Your task to perform on an android device: visit the assistant section in the google photos Image 0: 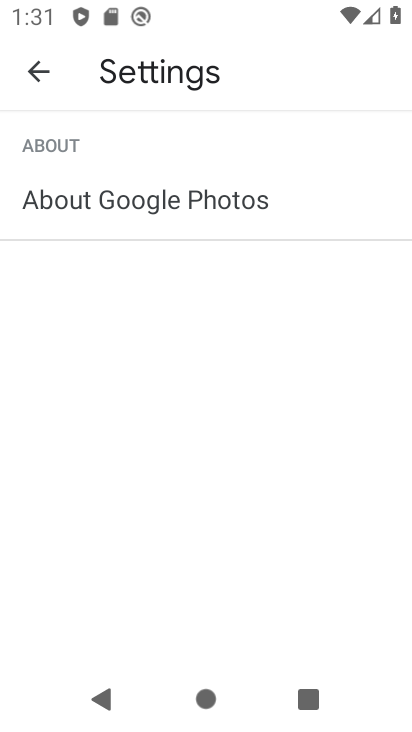
Step 0: press home button
Your task to perform on an android device: visit the assistant section in the google photos Image 1: 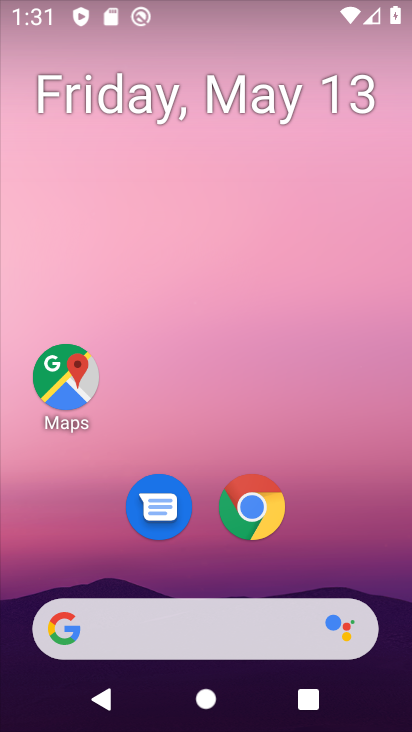
Step 1: drag from (218, 586) to (244, 32)
Your task to perform on an android device: visit the assistant section in the google photos Image 2: 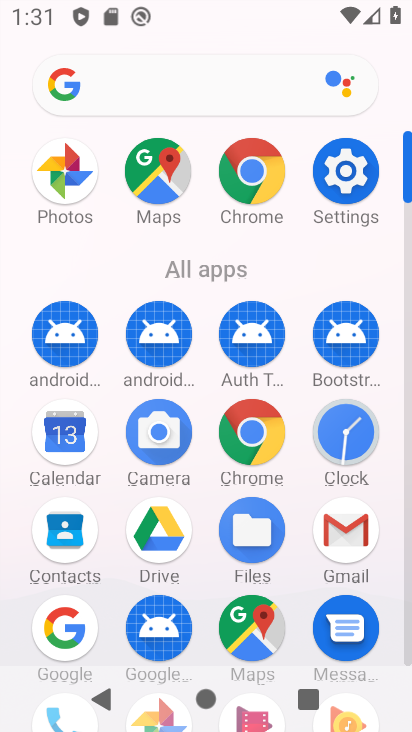
Step 2: drag from (108, 589) to (56, 104)
Your task to perform on an android device: visit the assistant section in the google photos Image 3: 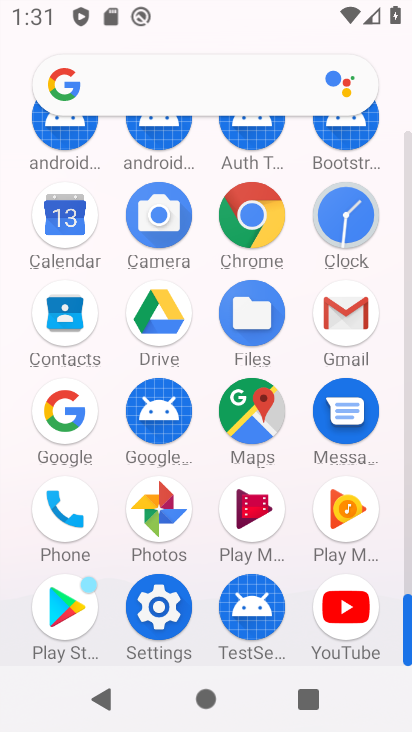
Step 3: click (160, 528)
Your task to perform on an android device: visit the assistant section in the google photos Image 4: 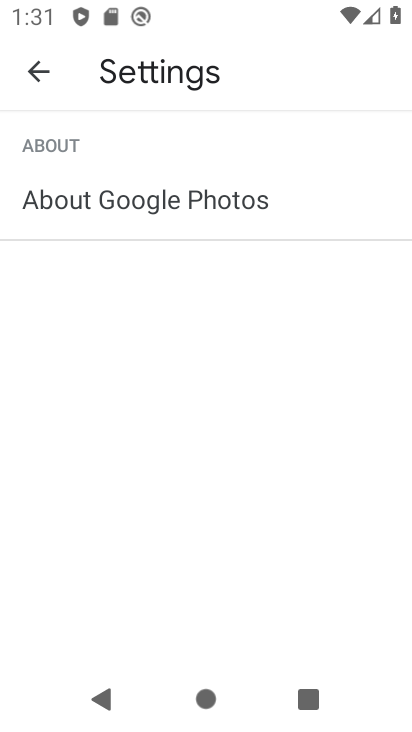
Step 4: click (38, 69)
Your task to perform on an android device: visit the assistant section in the google photos Image 5: 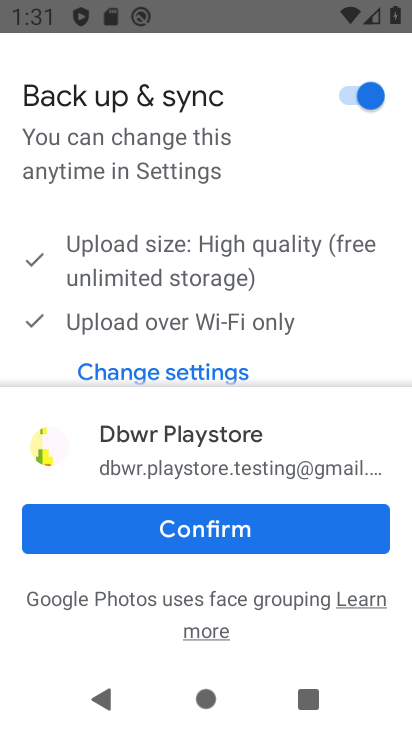
Step 5: click (185, 515)
Your task to perform on an android device: visit the assistant section in the google photos Image 6: 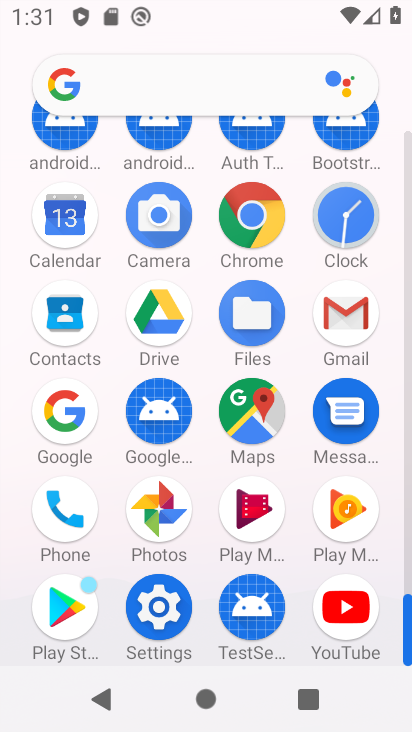
Step 6: click (141, 515)
Your task to perform on an android device: visit the assistant section in the google photos Image 7: 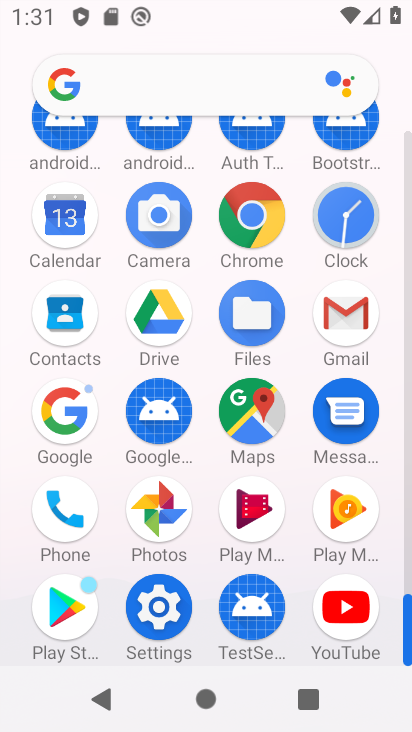
Step 7: click (155, 530)
Your task to perform on an android device: visit the assistant section in the google photos Image 8: 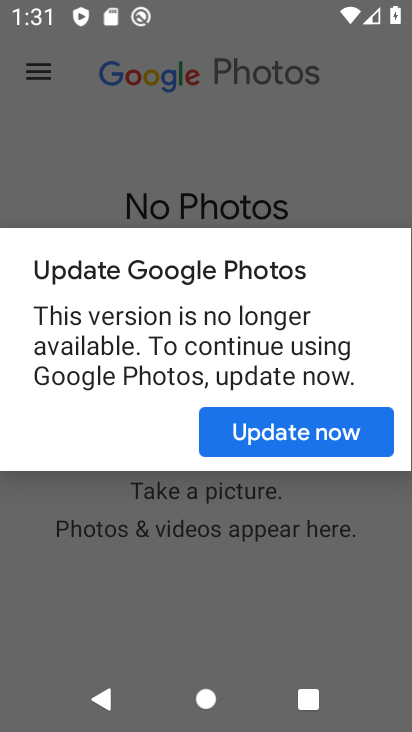
Step 8: click (292, 432)
Your task to perform on an android device: visit the assistant section in the google photos Image 9: 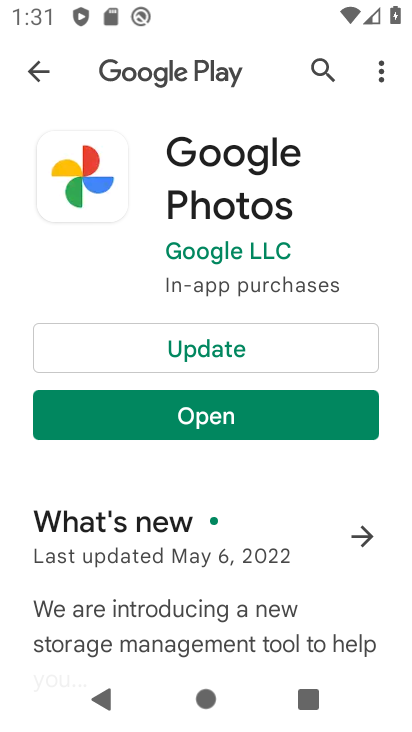
Step 9: click (234, 410)
Your task to perform on an android device: visit the assistant section in the google photos Image 10: 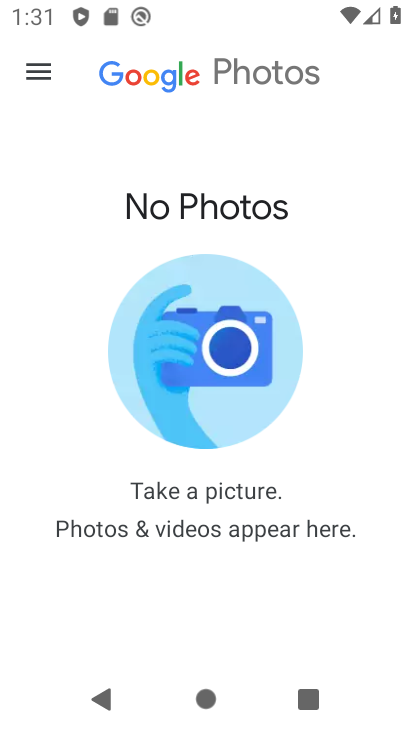
Step 10: click (29, 76)
Your task to perform on an android device: visit the assistant section in the google photos Image 11: 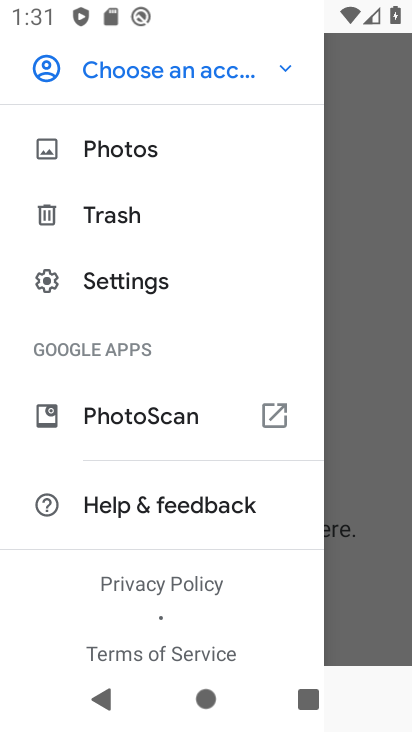
Step 11: click (147, 68)
Your task to perform on an android device: visit the assistant section in the google photos Image 12: 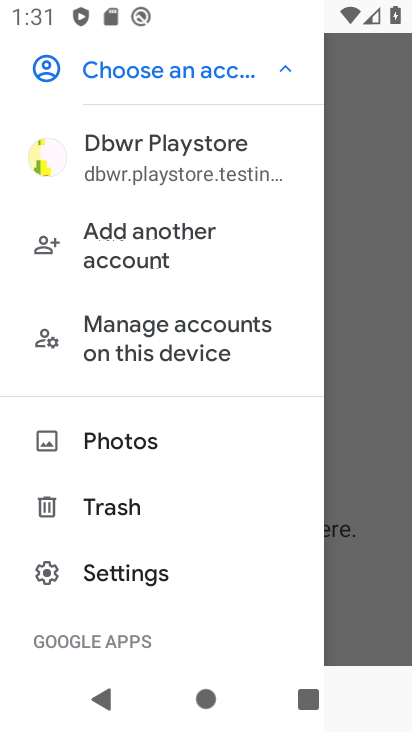
Step 12: click (179, 144)
Your task to perform on an android device: visit the assistant section in the google photos Image 13: 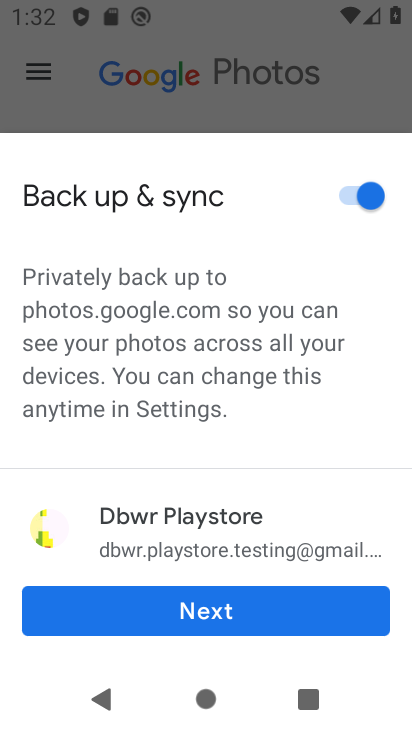
Step 13: click (268, 608)
Your task to perform on an android device: visit the assistant section in the google photos Image 14: 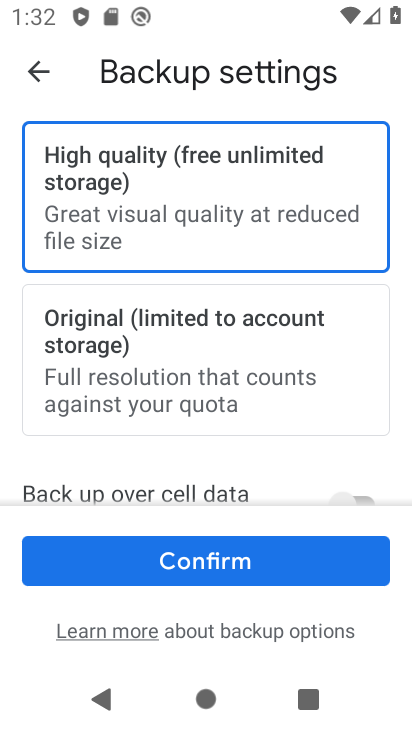
Step 14: click (267, 577)
Your task to perform on an android device: visit the assistant section in the google photos Image 15: 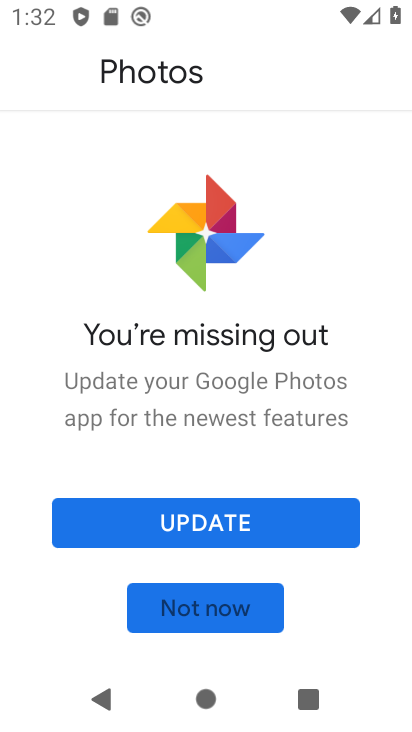
Step 15: click (225, 606)
Your task to perform on an android device: visit the assistant section in the google photos Image 16: 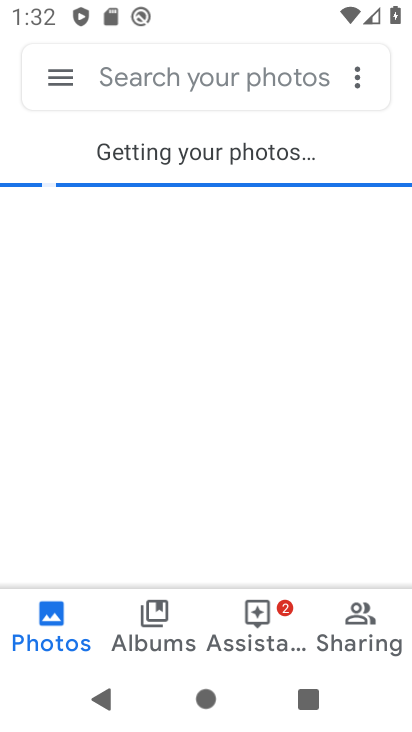
Step 16: click (249, 604)
Your task to perform on an android device: visit the assistant section in the google photos Image 17: 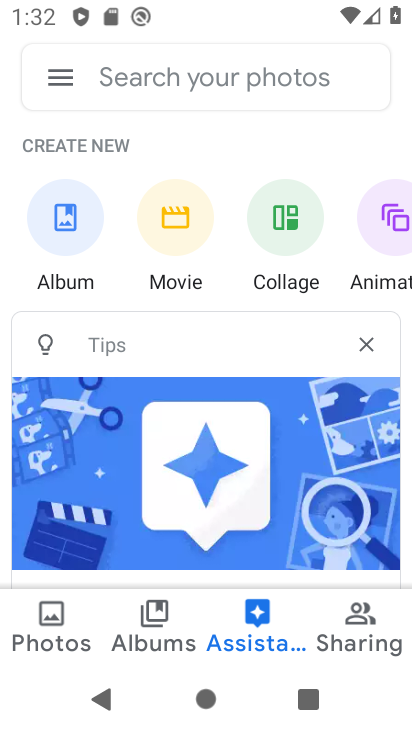
Step 17: task complete